Your task to perform on an android device: Open notification settings Image 0: 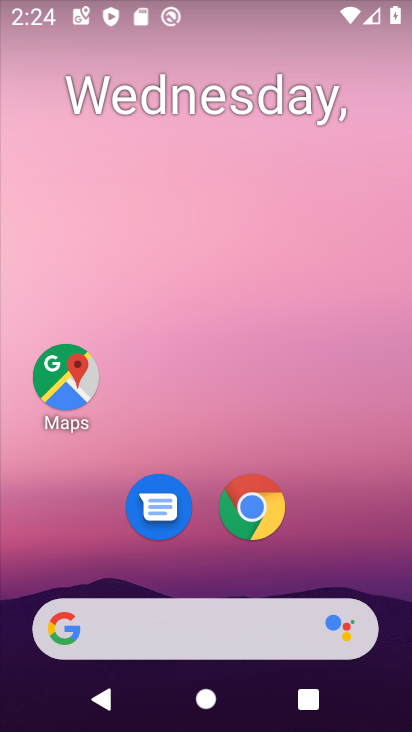
Step 0: drag from (297, 551) to (300, 239)
Your task to perform on an android device: Open notification settings Image 1: 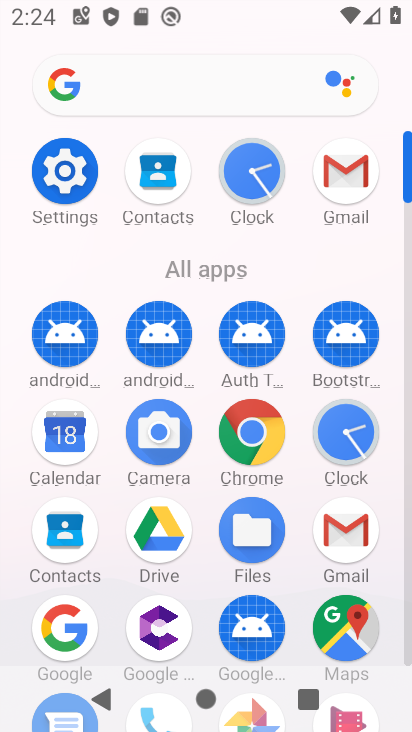
Step 1: click (65, 176)
Your task to perform on an android device: Open notification settings Image 2: 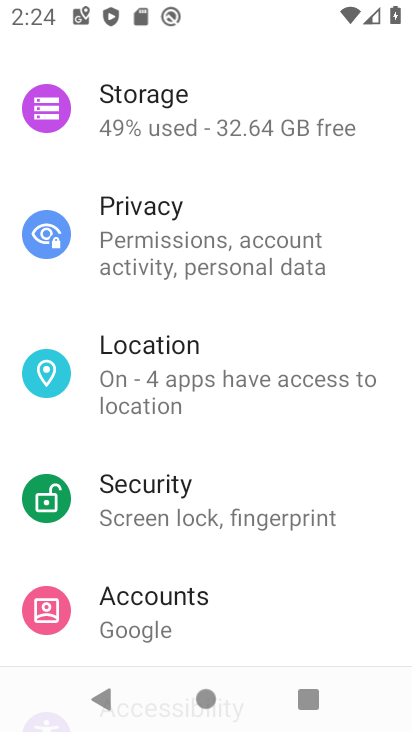
Step 2: drag from (244, 181) to (201, 671)
Your task to perform on an android device: Open notification settings Image 3: 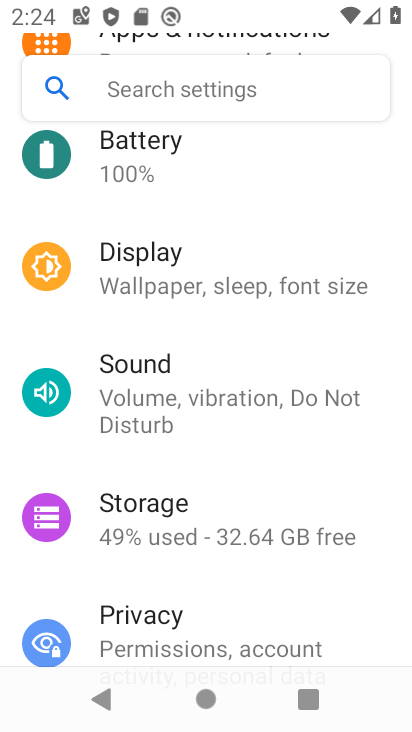
Step 3: drag from (155, 212) to (178, 499)
Your task to perform on an android device: Open notification settings Image 4: 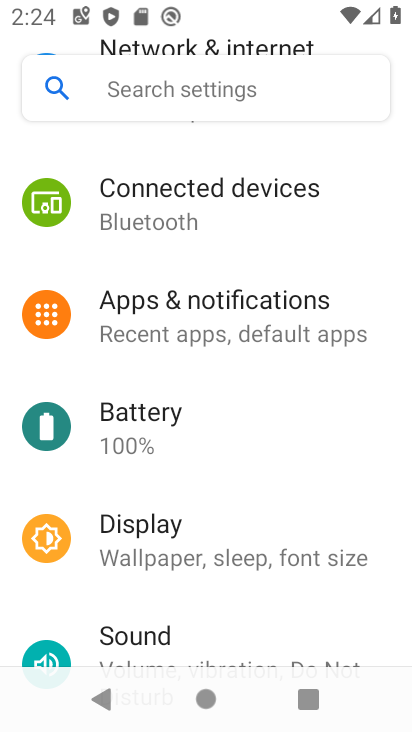
Step 4: click (174, 307)
Your task to perform on an android device: Open notification settings Image 5: 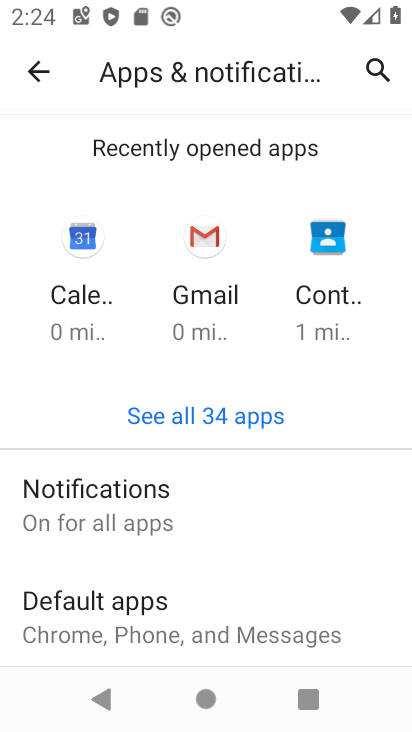
Step 5: click (125, 494)
Your task to perform on an android device: Open notification settings Image 6: 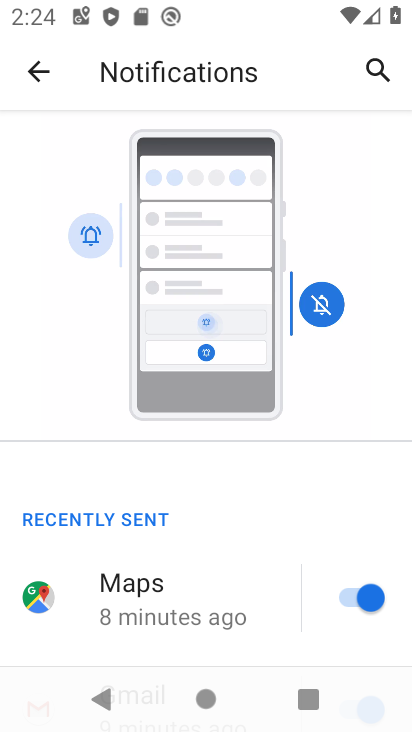
Step 6: drag from (199, 548) to (181, 150)
Your task to perform on an android device: Open notification settings Image 7: 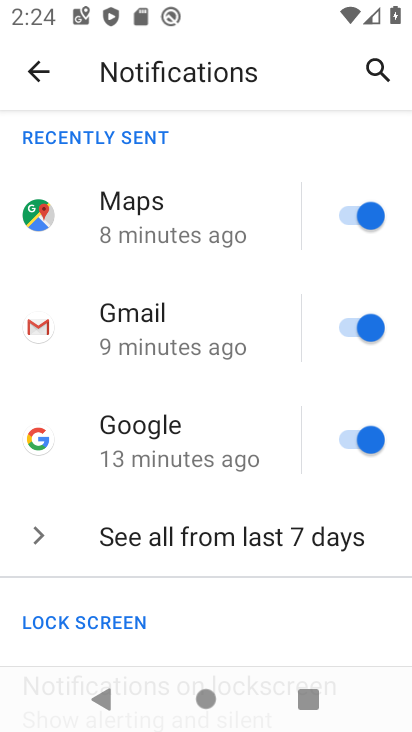
Step 7: drag from (166, 613) to (166, 239)
Your task to perform on an android device: Open notification settings Image 8: 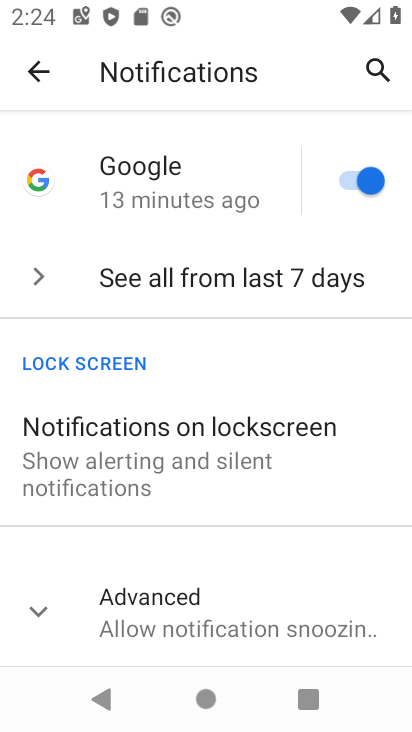
Step 8: click (155, 607)
Your task to perform on an android device: Open notification settings Image 9: 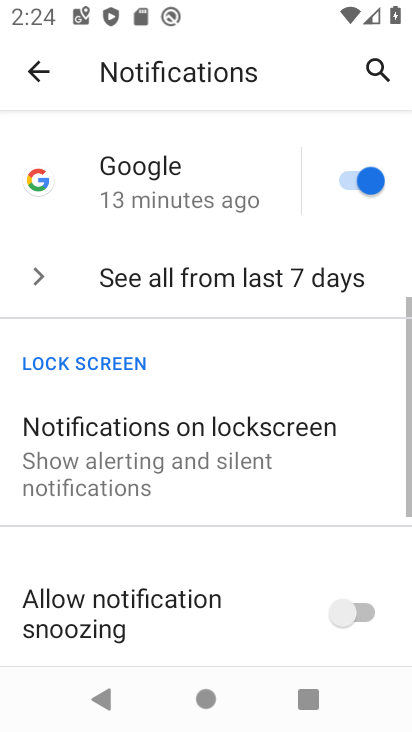
Step 9: task complete